Your task to perform on an android device: Open settings on Google Maps Image 0: 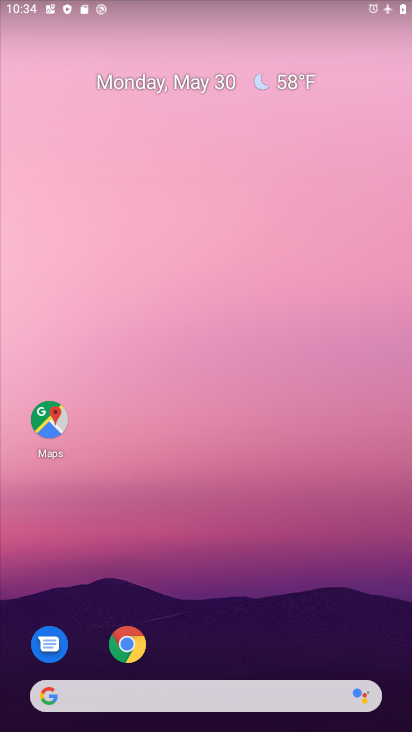
Step 0: click (53, 419)
Your task to perform on an android device: Open settings on Google Maps Image 1: 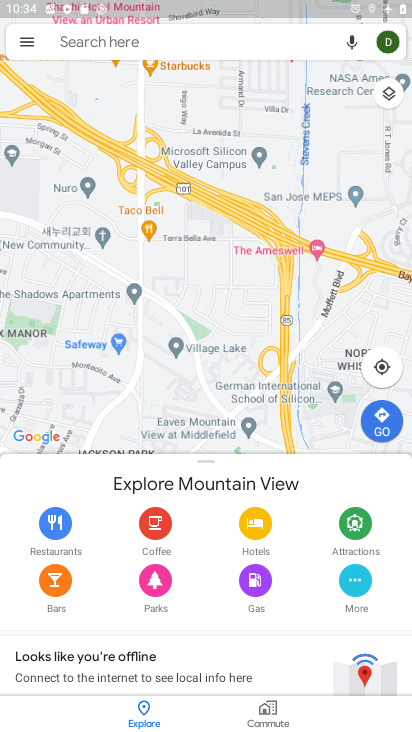
Step 1: drag from (234, 233) to (201, 378)
Your task to perform on an android device: Open settings on Google Maps Image 2: 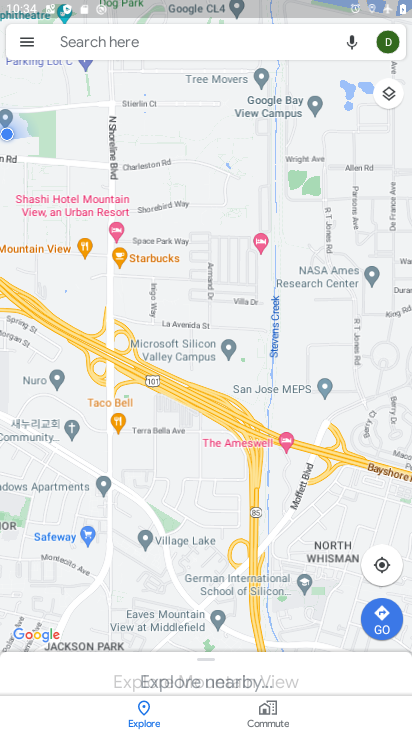
Step 2: drag from (204, 138) to (256, 307)
Your task to perform on an android device: Open settings on Google Maps Image 3: 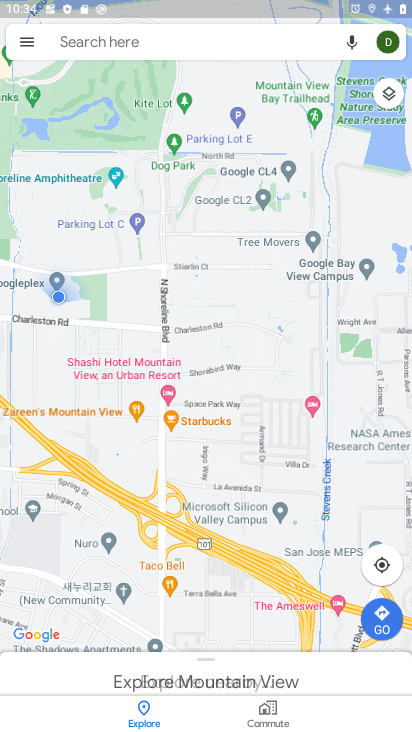
Step 3: drag from (101, 265) to (240, 336)
Your task to perform on an android device: Open settings on Google Maps Image 4: 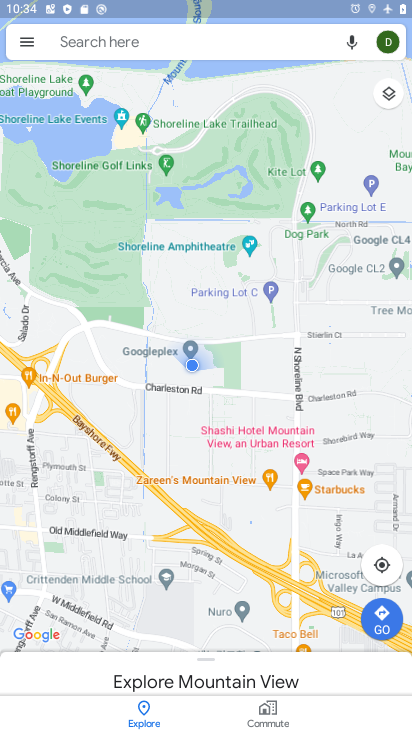
Step 4: click (31, 41)
Your task to perform on an android device: Open settings on Google Maps Image 5: 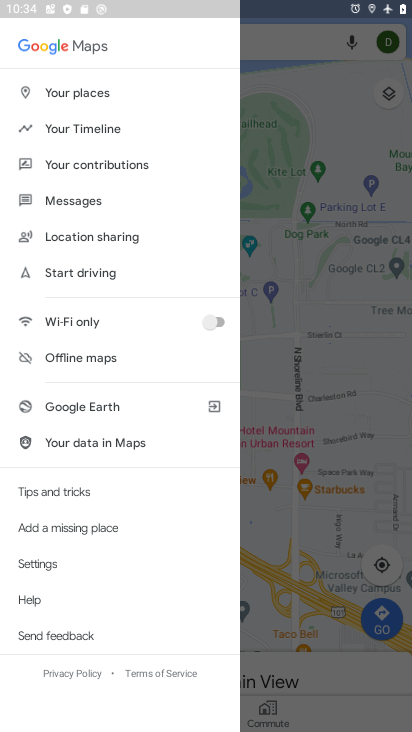
Step 5: click (44, 560)
Your task to perform on an android device: Open settings on Google Maps Image 6: 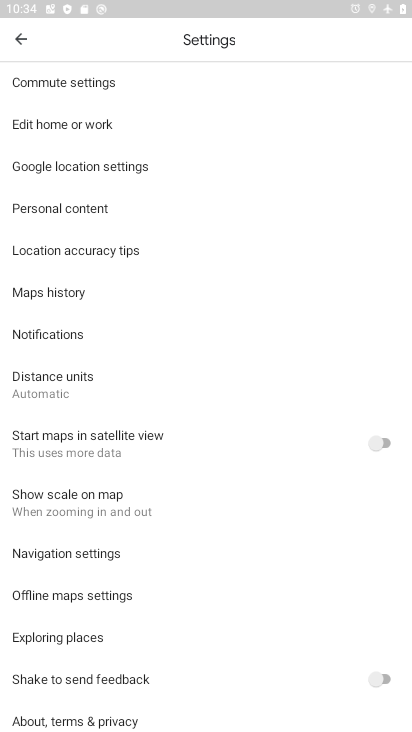
Step 6: task complete